Your task to perform on an android device: Open eBay Image 0: 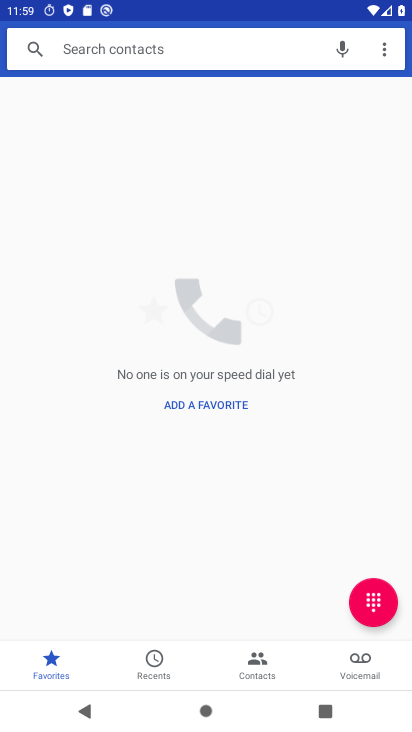
Step 0: press home button
Your task to perform on an android device: Open eBay Image 1: 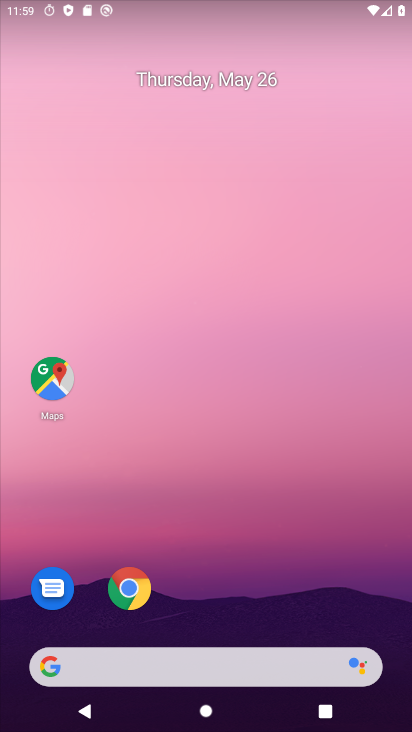
Step 1: drag from (173, 616) to (123, 336)
Your task to perform on an android device: Open eBay Image 2: 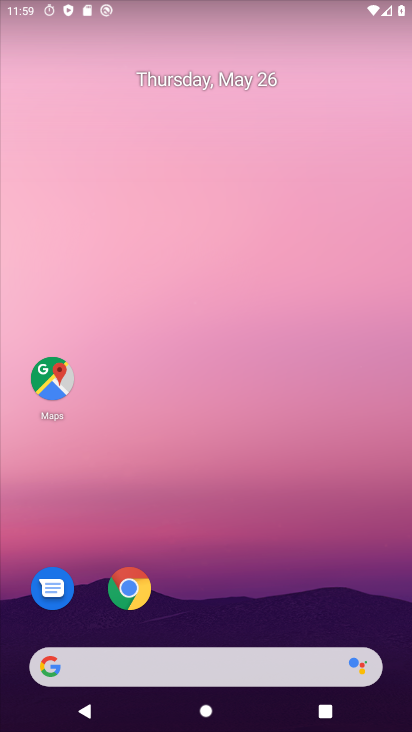
Step 2: drag from (225, 656) to (205, 77)
Your task to perform on an android device: Open eBay Image 3: 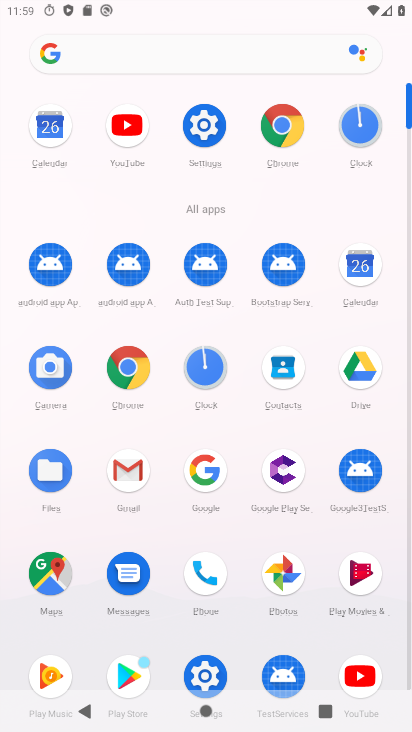
Step 3: click (286, 130)
Your task to perform on an android device: Open eBay Image 4: 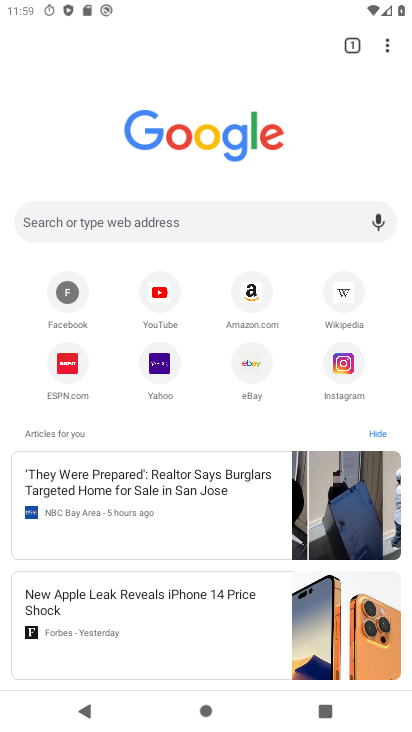
Step 4: click (246, 357)
Your task to perform on an android device: Open eBay Image 5: 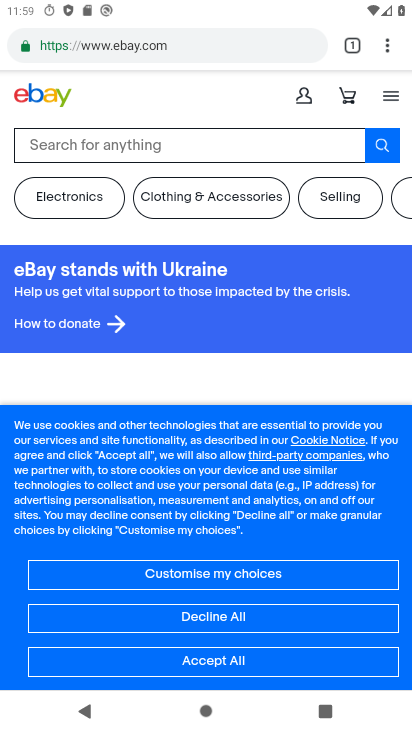
Step 5: task complete